Your task to perform on an android device: delete a single message in the gmail app Image 0: 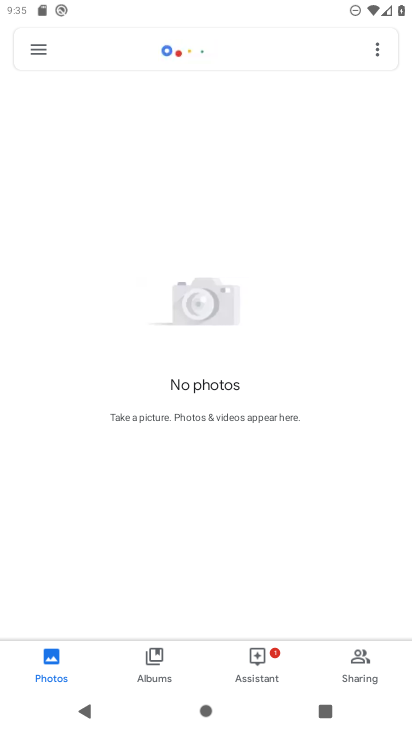
Step 0: press home button
Your task to perform on an android device: delete a single message in the gmail app Image 1: 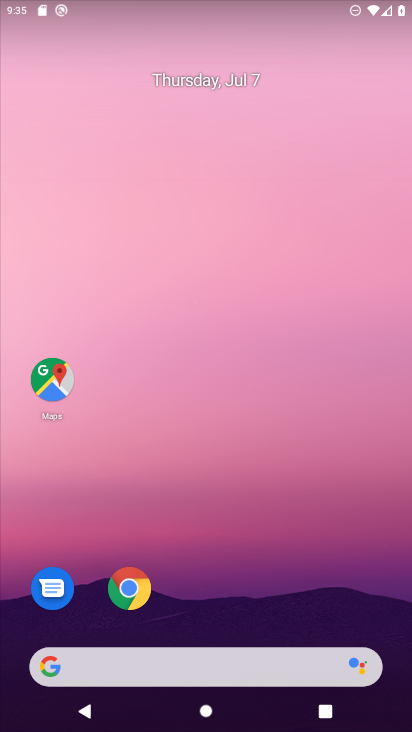
Step 1: drag from (160, 619) to (207, 31)
Your task to perform on an android device: delete a single message in the gmail app Image 2: 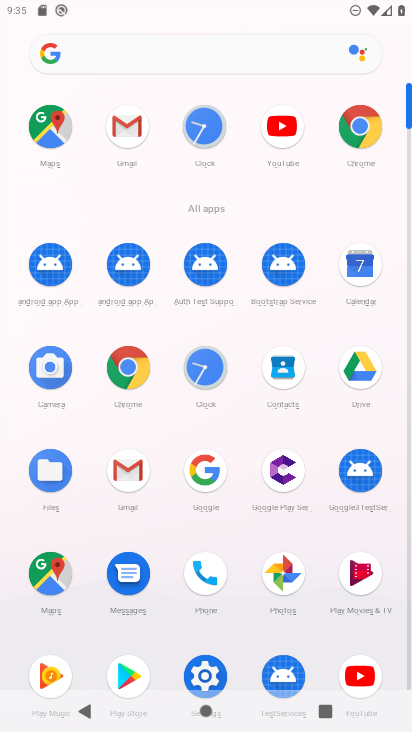
Step 2: click (131, 121)
Your task to perform on an android device: delete a single message in the gmail app Image 3: 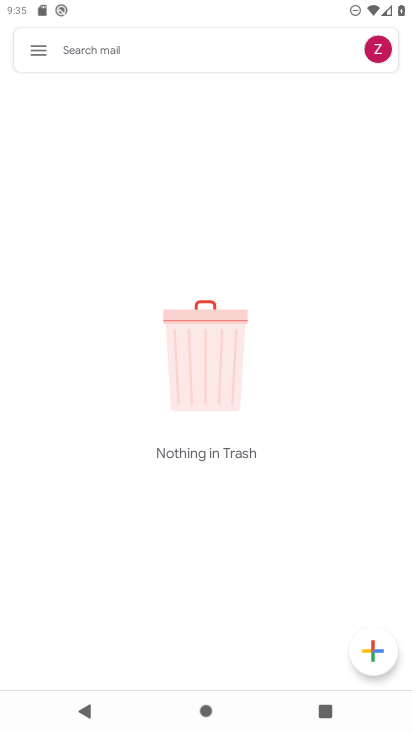
Step 3: click (43, 44)
Your task to perform on an android device: delete a single message in the gmail app Image 4: 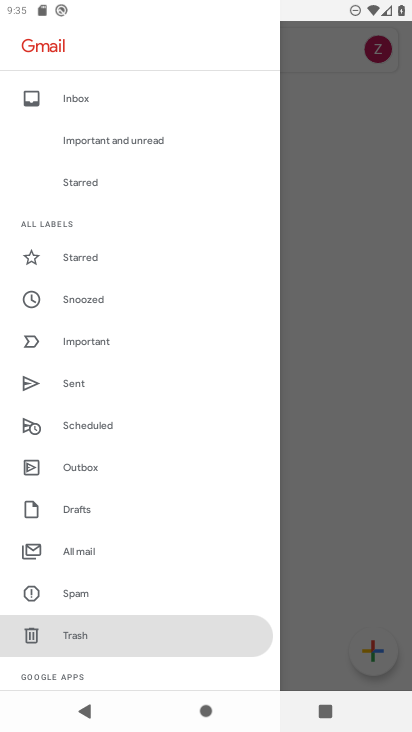
Step 4: click (88, 561)
Your task to perform on an android device: delete a single message in the gmail app Image 5: 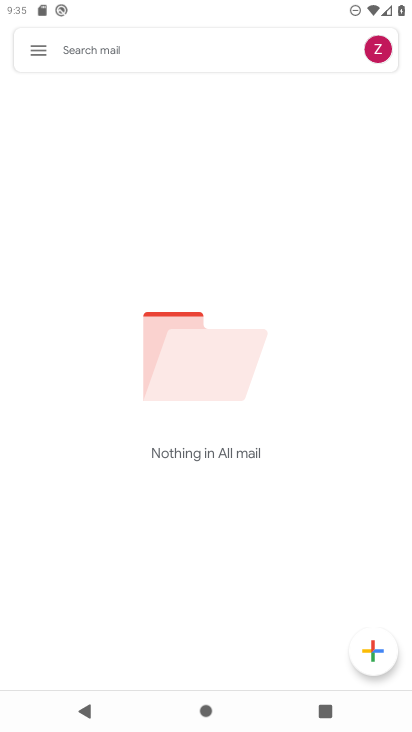
Step 5: task complete